Your task to perform on an android device: Go to settings Image 0: 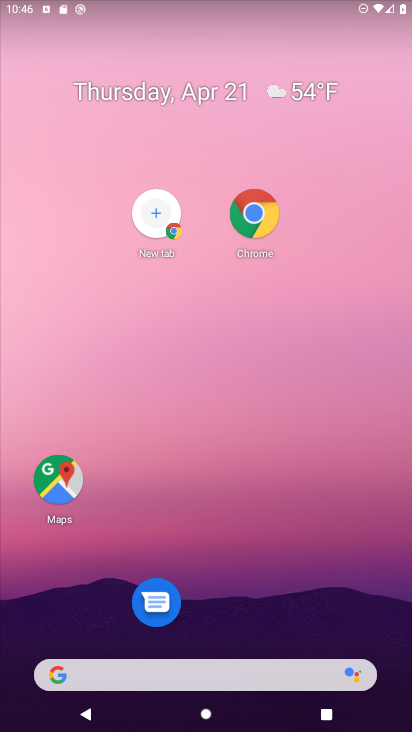
Step 0: drag from (262, 624) to (202, 231)
Your task to perform on an android device: Go to settings Image 1: 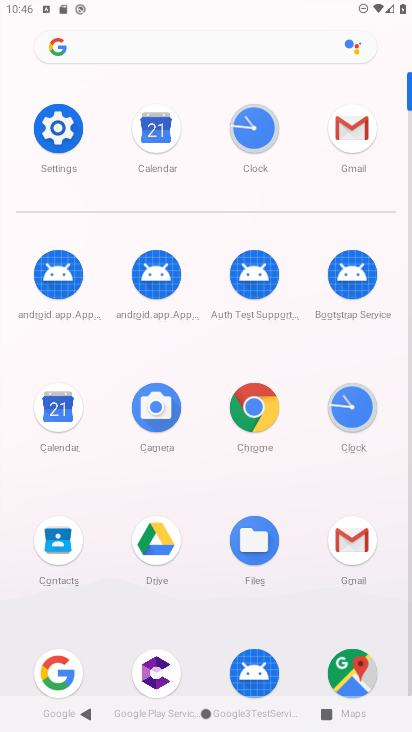
Step 1: click (67, 131)
Your task to perform on an android device: Go to settings Image 2: 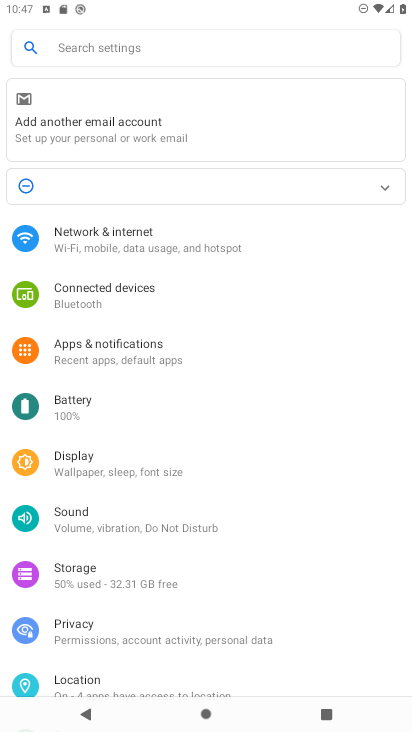
Step 2: task complete